Your task to perform on an android device: turn off notifications settings in the gmail app Image 0: 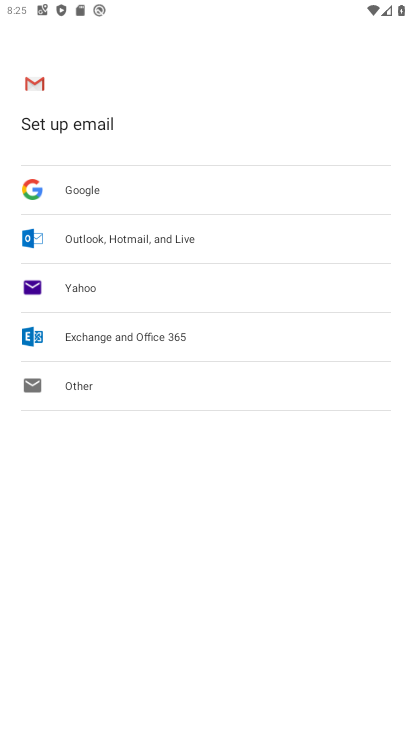
Step 0: press home button
Your task to perform on an android device: turn off notifications settings in the gmail app Image 1: 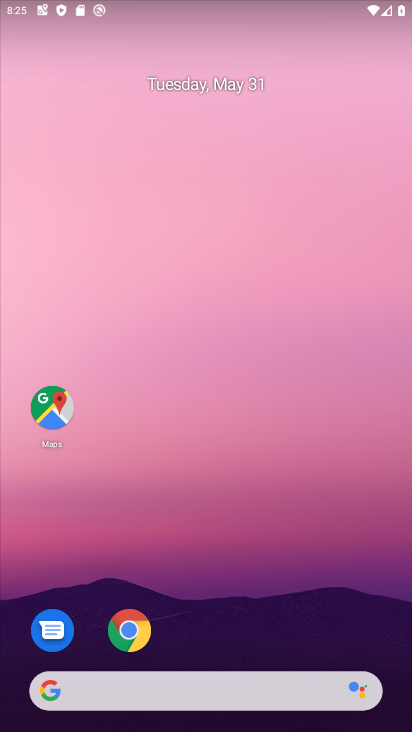
Step 1: drag from (244, 579) to (245, 209)
Your task to perform on an android device: turn off notifications settings in the gmail app Image 2: 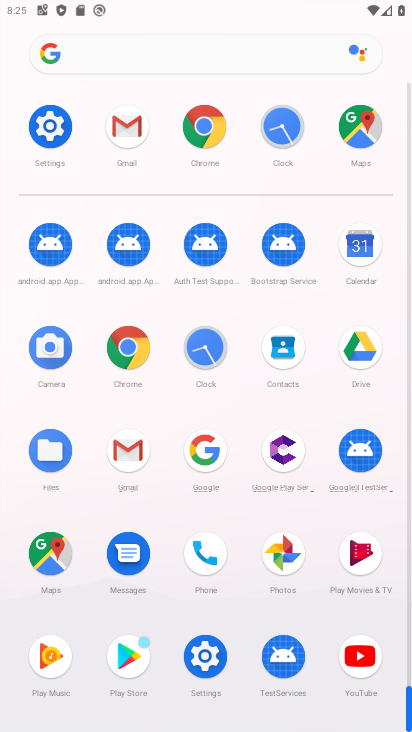
Step 2: click (141, 448)
Your task to perform on an android device: turn off notifications settings in the gmail app Image 3: 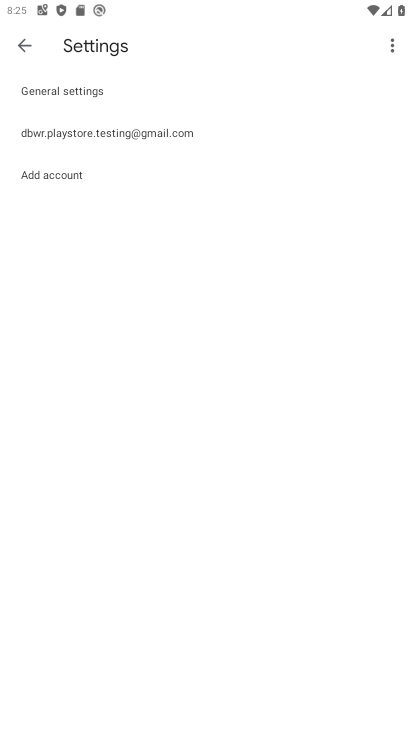
Step 3: click (127, 130)
Your task to perform on an android device: turn off notifications settings in the gmail app Image 4: 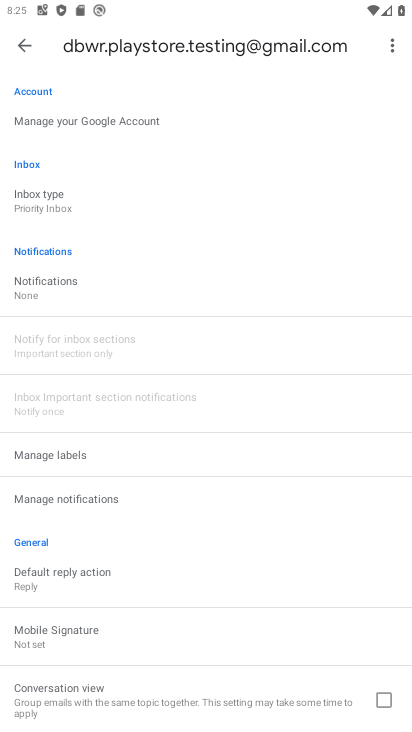
Step 4: click (56, 281)
Your task to perform on an android device: turn off notifications settings in the gmail app Image 5: 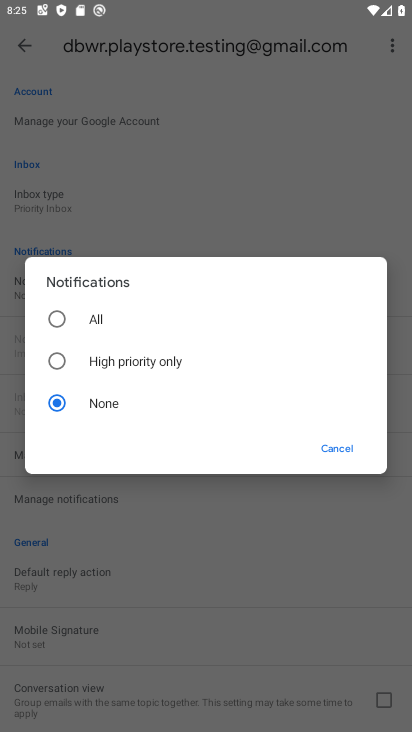
Step 5: task complete